Your task to perform on an android device: toggle data saver in the chrome app Image 0: 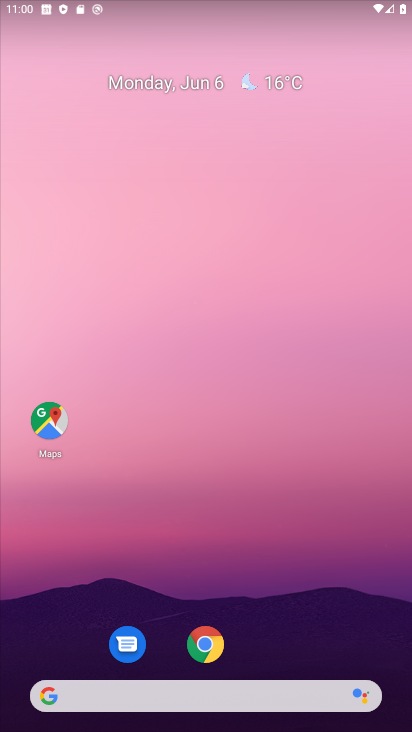
Step 0: click (218, 640)
Your task to perform on an android device: toggle data saver in the chrome app Image 1: 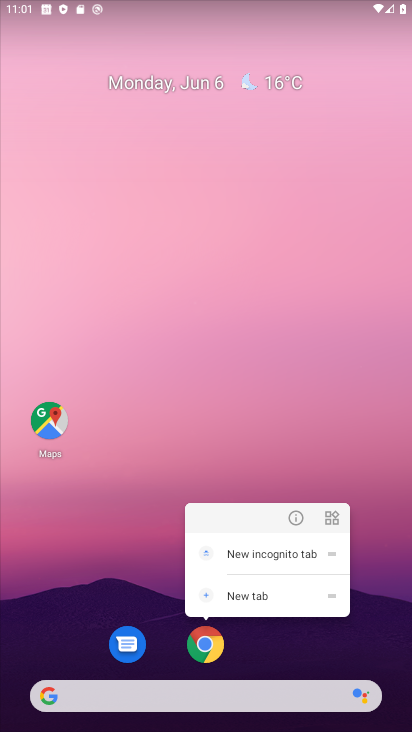
Step 1: click (218, 640)
Your task to perform on an android device: toggle data saver in the chrome app Image 2: 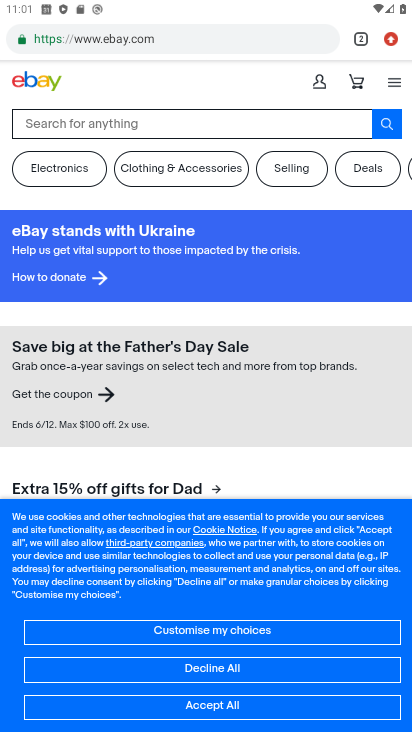
Step 2: click (395, 44)
Your task to perform on an android device: toggle data saver in the chrome app Image 3: 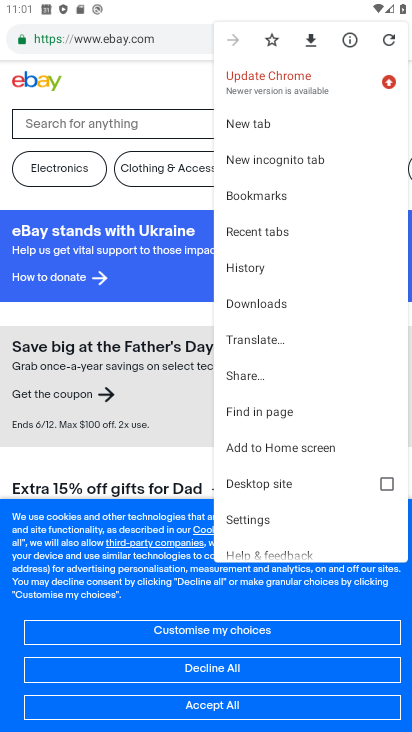
Step 3: click (274, 521)
Your task to perform on an android device: toggle data saver in the chrome app Image 4: 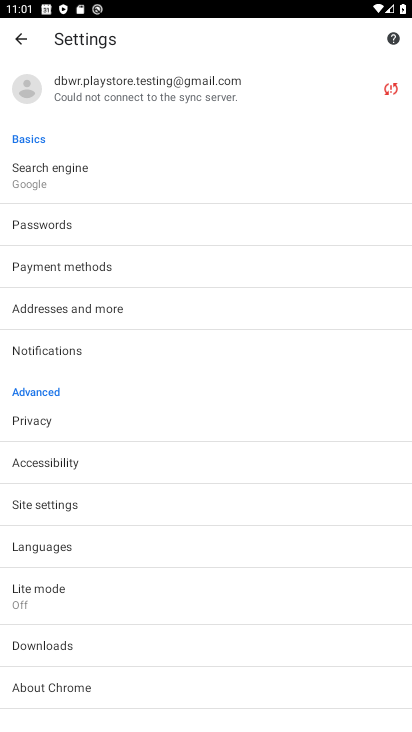
Step 4: click (122, 587)
Your task to perform on an android device: toggle data saver in the chrome app Image 5: 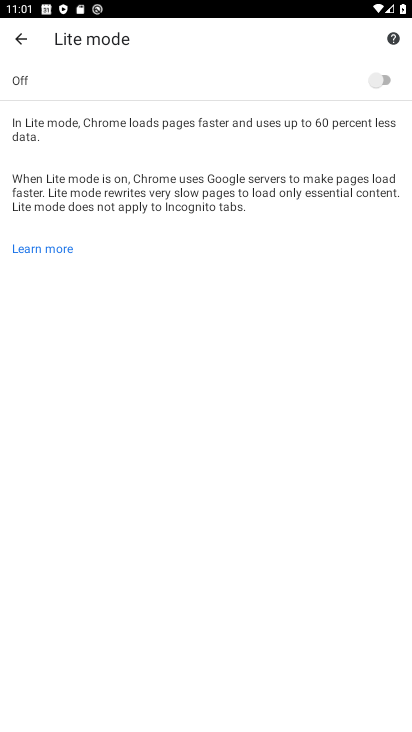
Step 5: click (387, 78)
Your task to perform on an android device: toggle data saver in the chrome app Image 6: 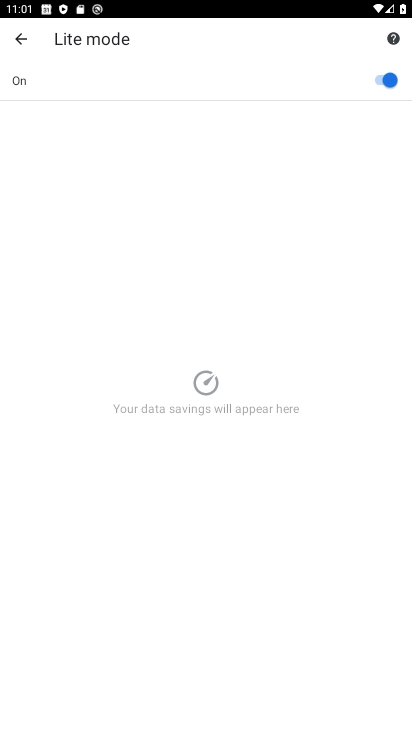
Step 6: task complete